Your task to perform on an android device: open sync settings in chrome Image 0: 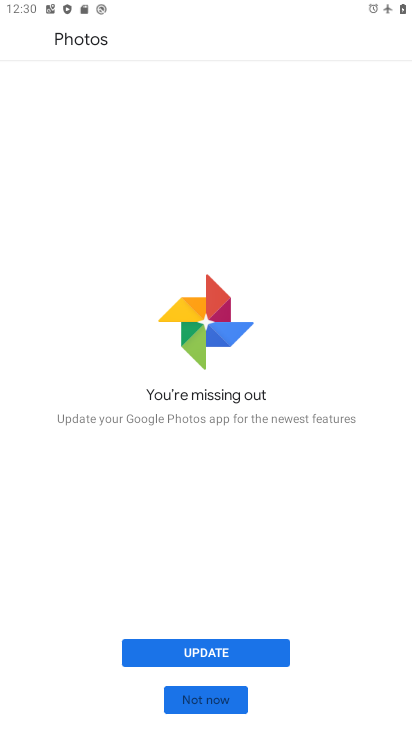
Step 0: press home button
Your task to perform on an android device: open sync settings in chrome Image 1: 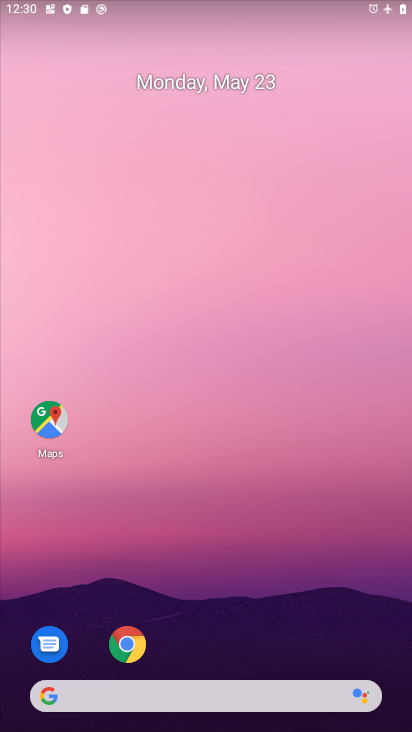
Step 1: drag from (311, 604) to (302, 130)
Your task to perform on an android device: open sync settings in chrome Image 2: 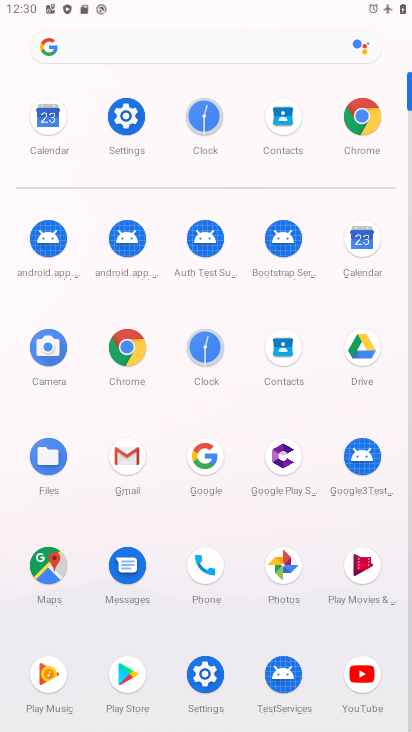
Step 2: click (376, 132)
Your task to perform on an android device: open sync settings in chrome Image 3: 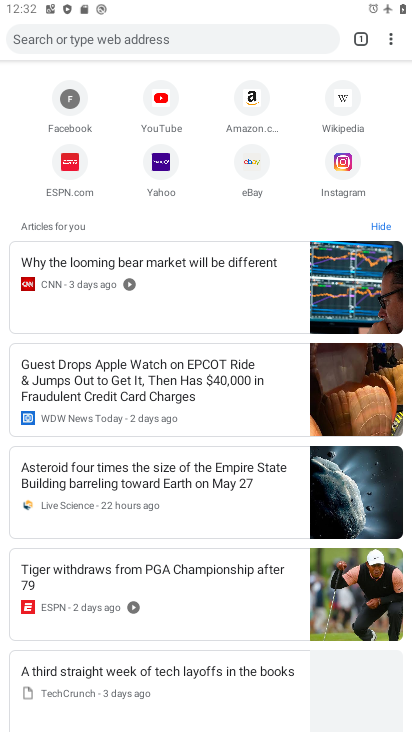
Step 3: click (394, 38)
Your task to perform on an android device: open sync settings in chrome Image 4: 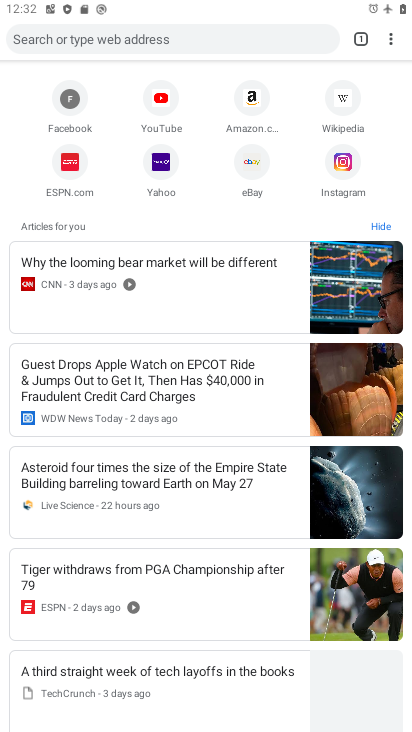
Step 4: click (388, 34)
Your task to perform on an android device: open sync settings in chrome Image 5: 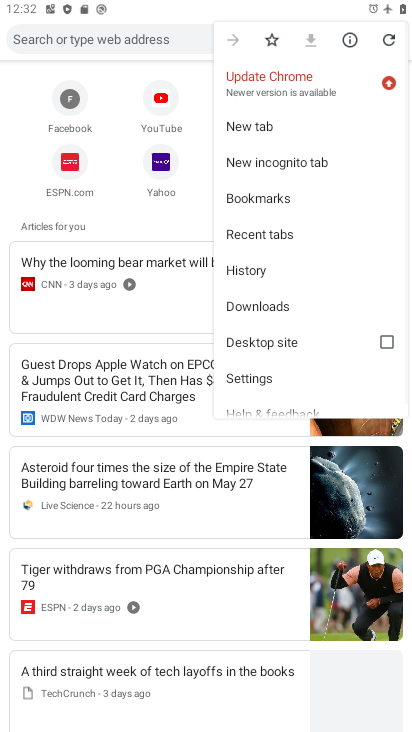
Step 5: click (267, 381)
Your task to perform on an android device: open sync settings in chrome Image 6: 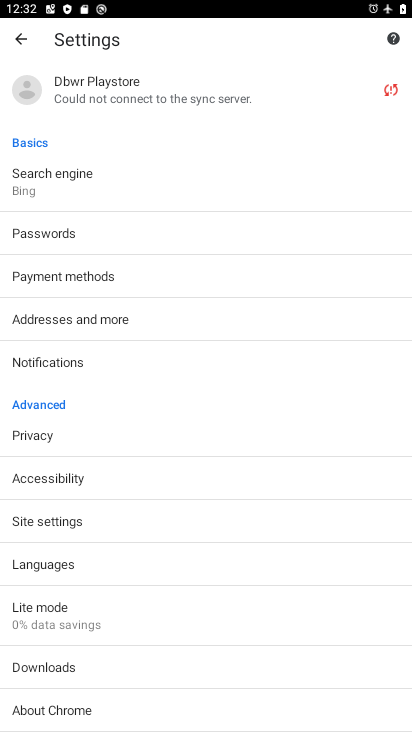
Step 6: task complete